Your task to perform on an android device: turn off javascript in the chrome app Image 0: 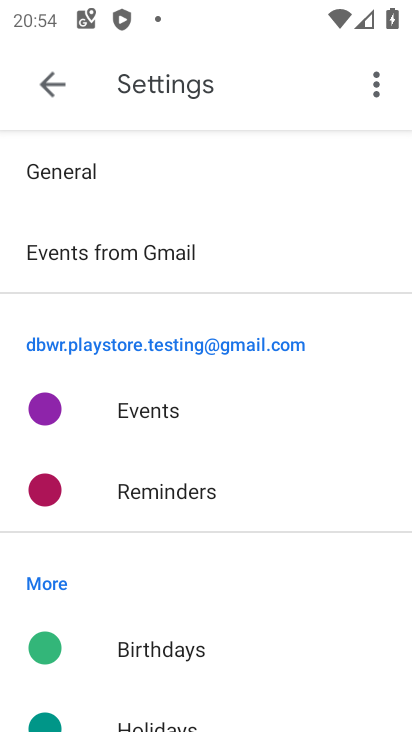
Step 0: press home button
Your task to perform on an android device: turn off javascript in the chrome app Image 1: 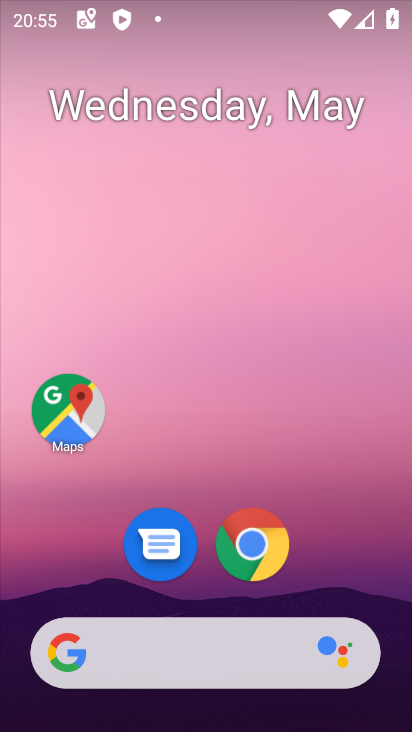
Step 1: click (261, 541)
Your task to perform on an android device: turn off javascript in the chrome app Image 2: 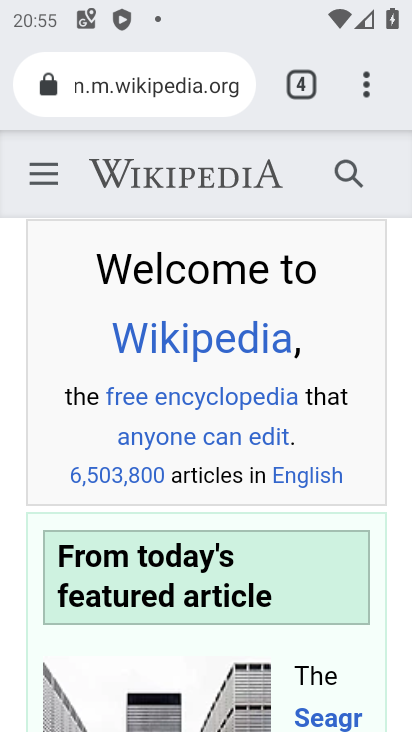
Step 2: click (376, 83)
Your task to perform on an android device: turn off javascript in the chrome app Image 3: 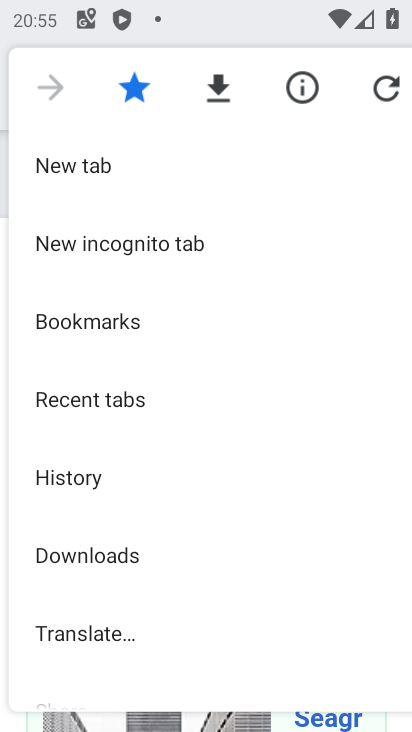
Step 3: drag from (68, 575) to (130, 126)
Your task to perform on an android device: turn off javascript in the chrome app Image 4: 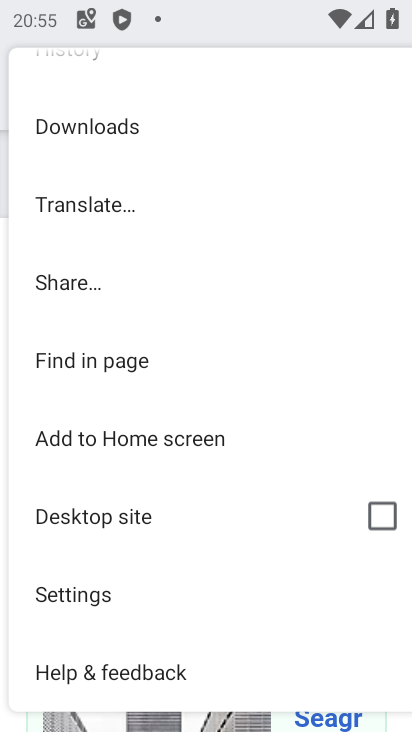
Step 4: click (115, 575)
Your task to perform on an android device: turn off javascript in the chrome app Image 5: 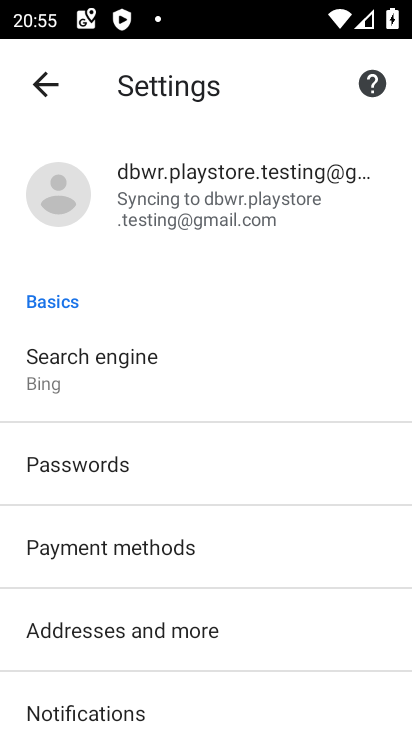
Step 5: drag from (109, 683) to (217, 283)
Your task to perform on an android device: turn off javascript in the chrome app Image 6: 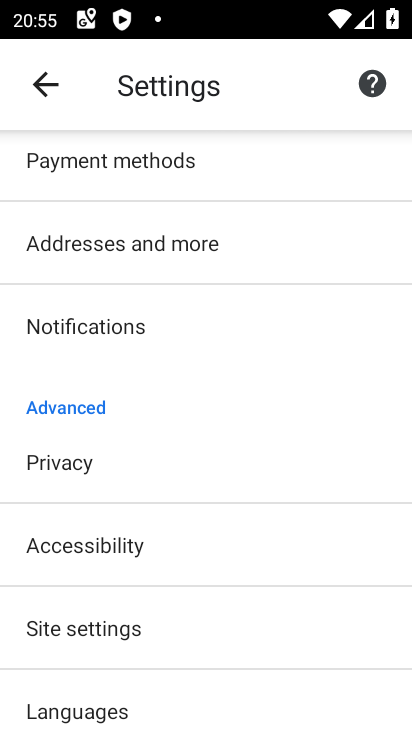
Step 6: drag from (197, 647) to (267, 259)
Your task to perform on an android device: turn off javascript in the chrome app Image 7: 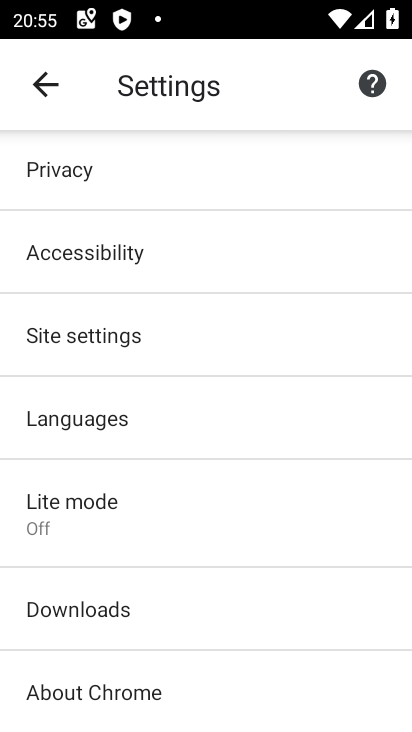
Step 7: click (153, 322)
Your task to perform on an android device: turn off javascript in the chrome app Image 8: 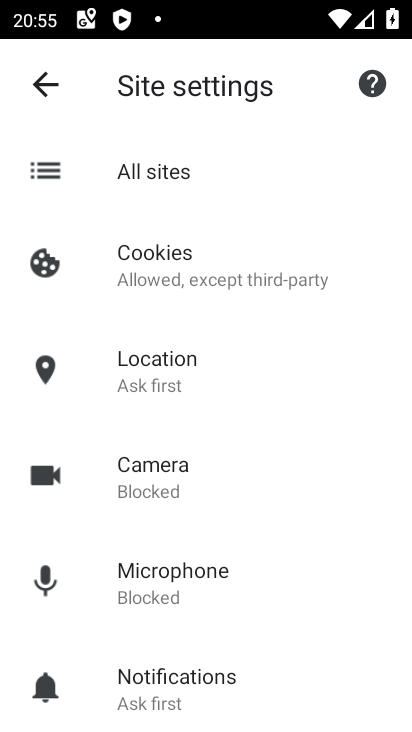
Step 8: drag from (92, 634) to (182, 209)
Your task to perform on an android device: turn off javascript in the chrome app Image 9: 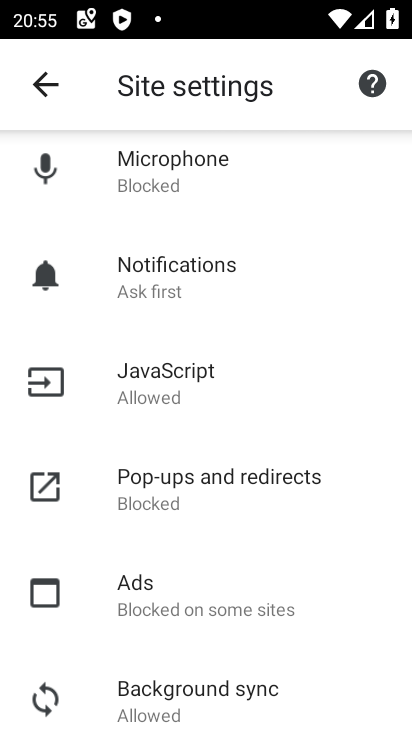
Step 9: click (164, 376)
Your task to perform on an android device: turn off javascript in the chrome app Image 10: 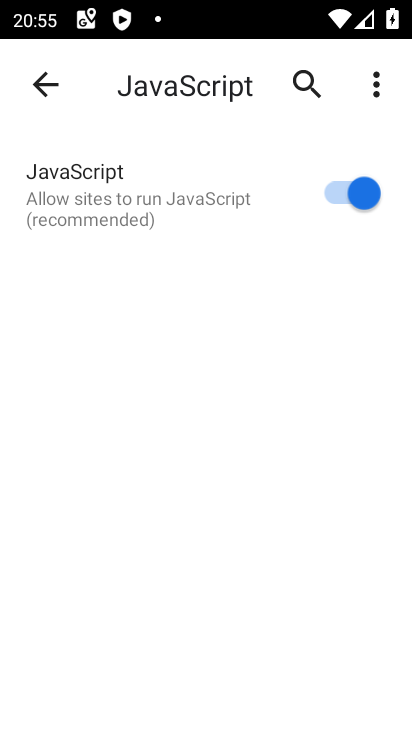
Step 10: click (339, 197)
Your task to perform on an android device: turn off javascript in the chrome app Image 11: 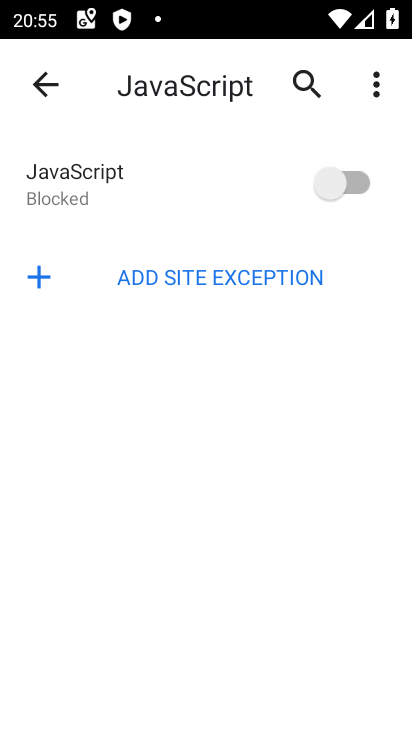
Step 11: task complete